Your task to perform on an android device: Open Yahoo.com Image 0: 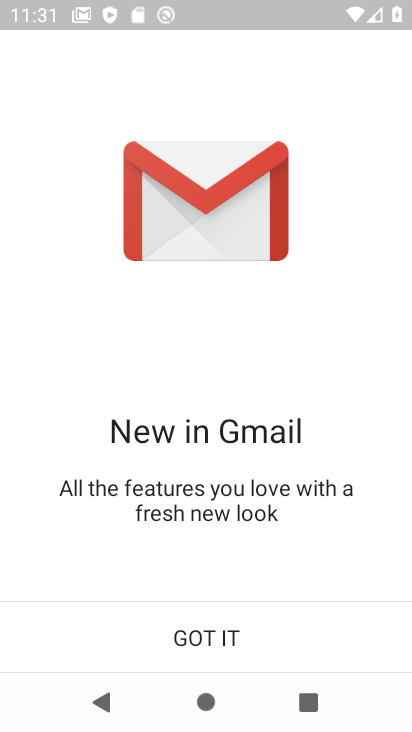
Step 0: press home button
Your task to perform on an android device: Open Yahoo.com Image 1: 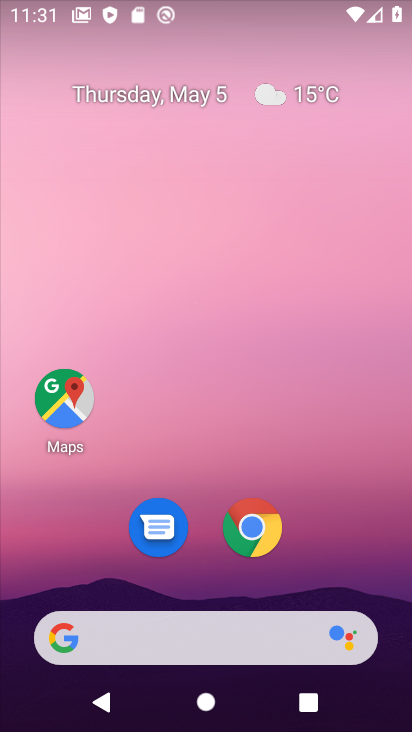
Step 1: click (263, 528)
Your task to perform on an android device: Open Yahoo.com Image 2: 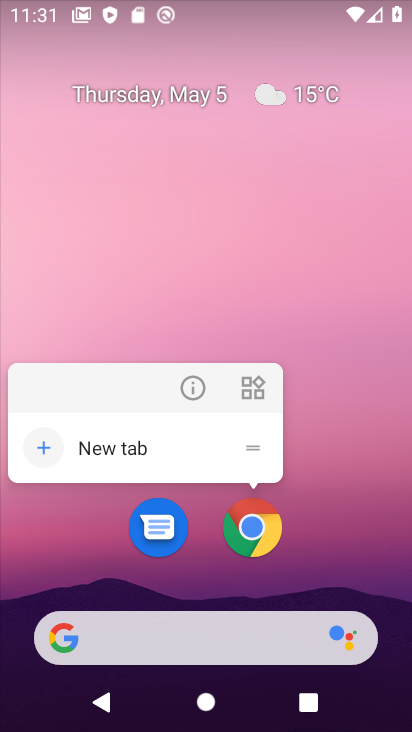
Step 2: click (259, 527)
Your task to perform on an android device: Open Yahoo.com Image 3: 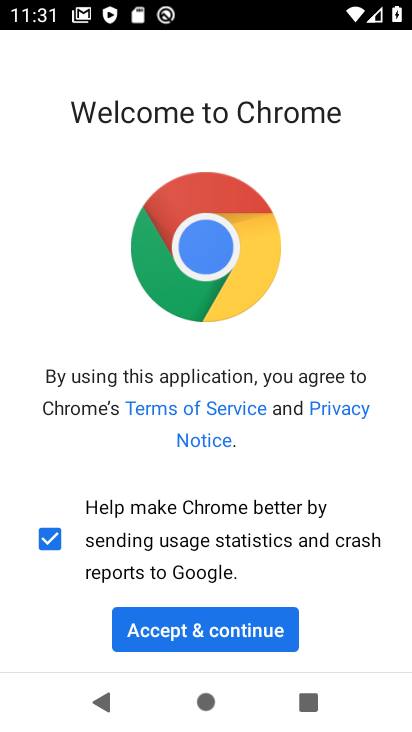
Step 3: click (210, 630)
Your task to perform on an android device: Open Yahoo.com Image 4: 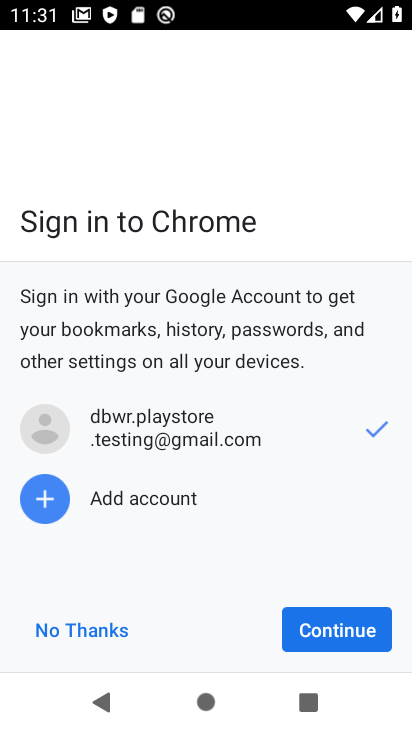
Step 4: click (388, 652)
Your task to perform on an android device: Open Yahoo.com Image 5: 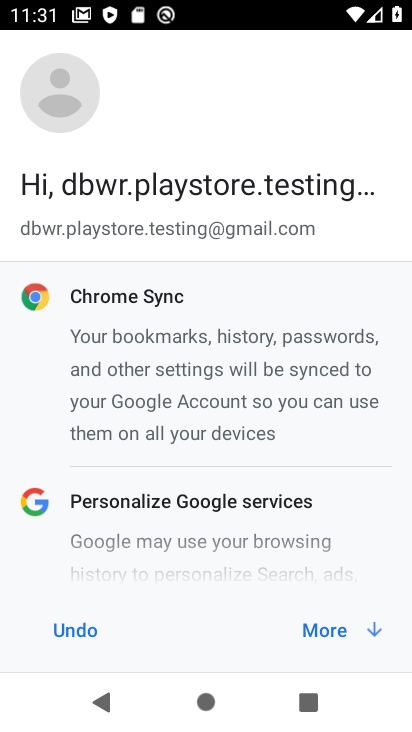
Step 5: click (353, 650)
Your task to perform on an android device: Open Yahoo.com Image 6: 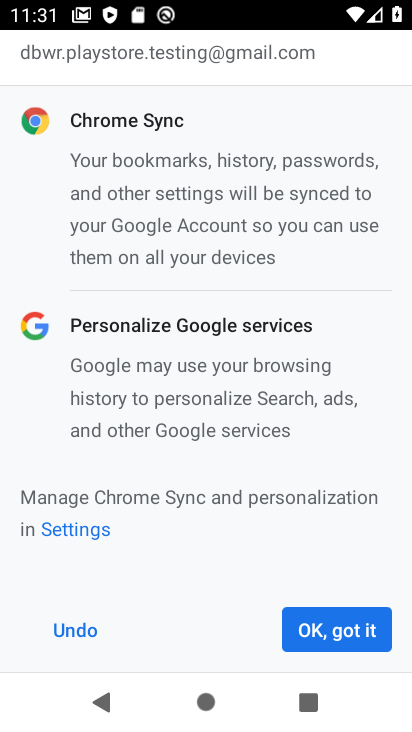
Step 6: click (348, 629)
Your task to perform on an android device: Open Yahoo.com Image 7: 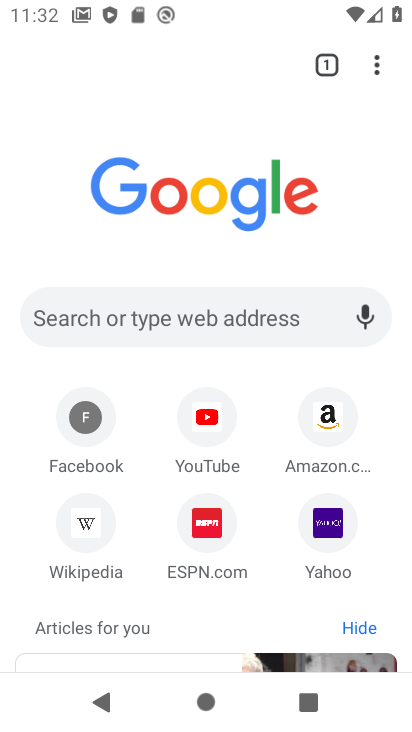
Step 7: click (329, 514)
Your task to perform on an android device: Open Yahoo.com Image 8: 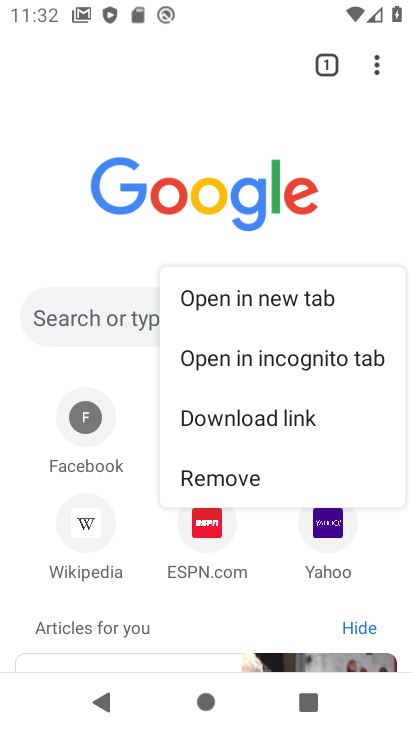
Step 8: click (329, 538)
Your task to perform on an android device: Open Yahoo.com Image 9: 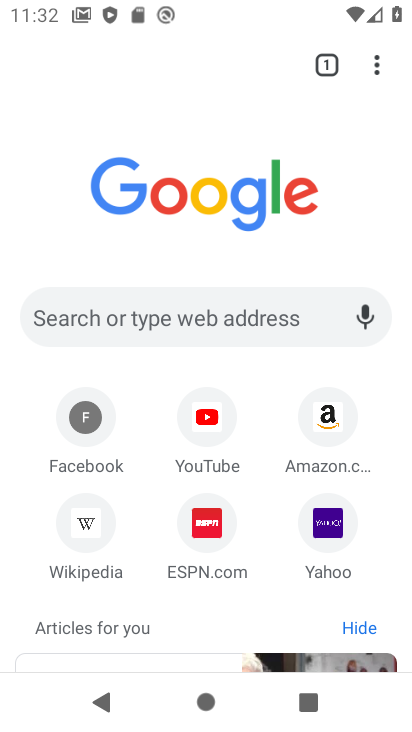
Step 9: click (354, 547)
Your task to perform on an android device: Open Yahoo.com Image 10: 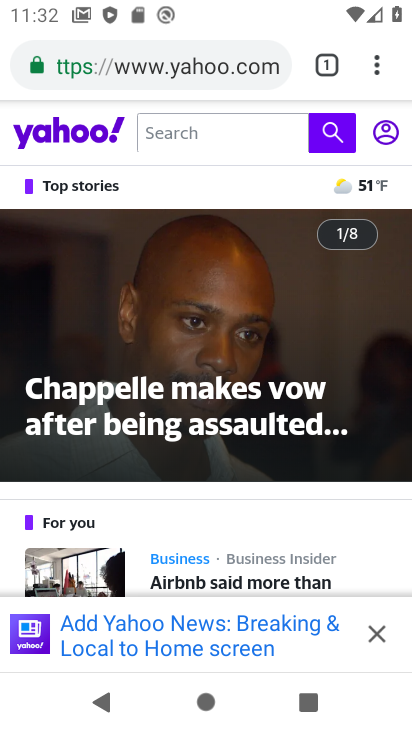
Step 10: task complete